Your task to perform on an android device: Search for "panasonic triple a" on amazon, select the first entry, and add it to the cart. Image 0: 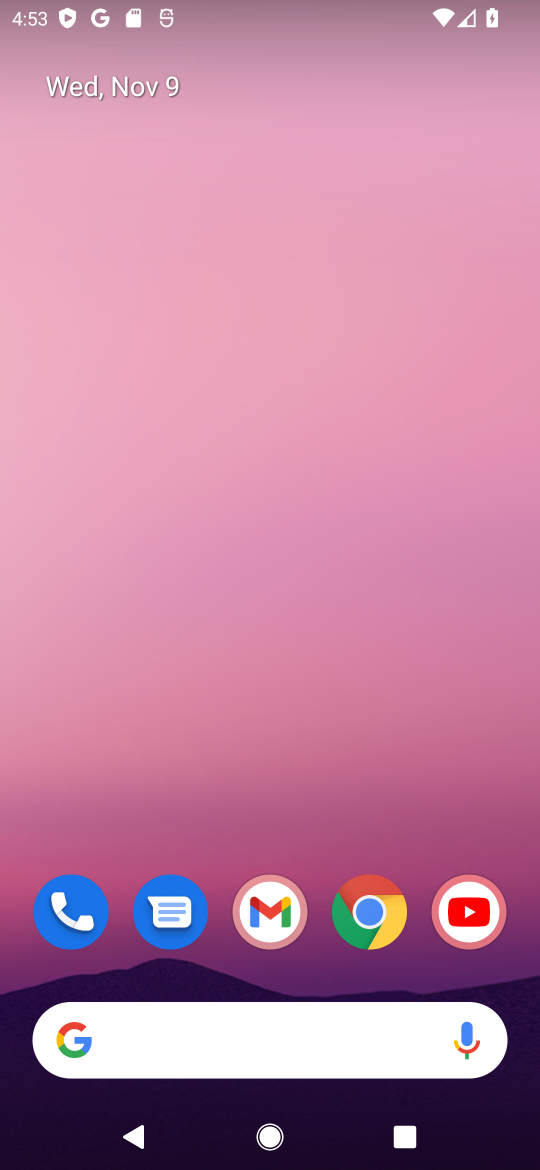
Step 0: click (371, 912)
Your task to perform on an android device: Search for "panasonic triple a" on amazon, select the first entry, and add it to the cart. Image 1: 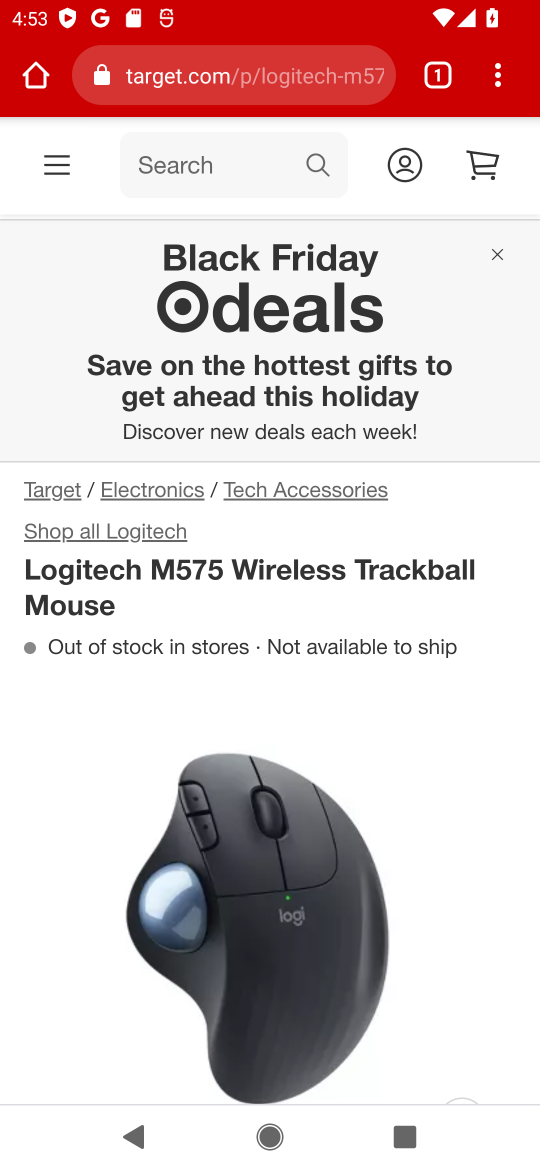
Step 1: click (187, 73)
Your task to perform on an android device: Search for "panasonic triple a" on amazon, select the first entry, and add it to the cart. Image 2: 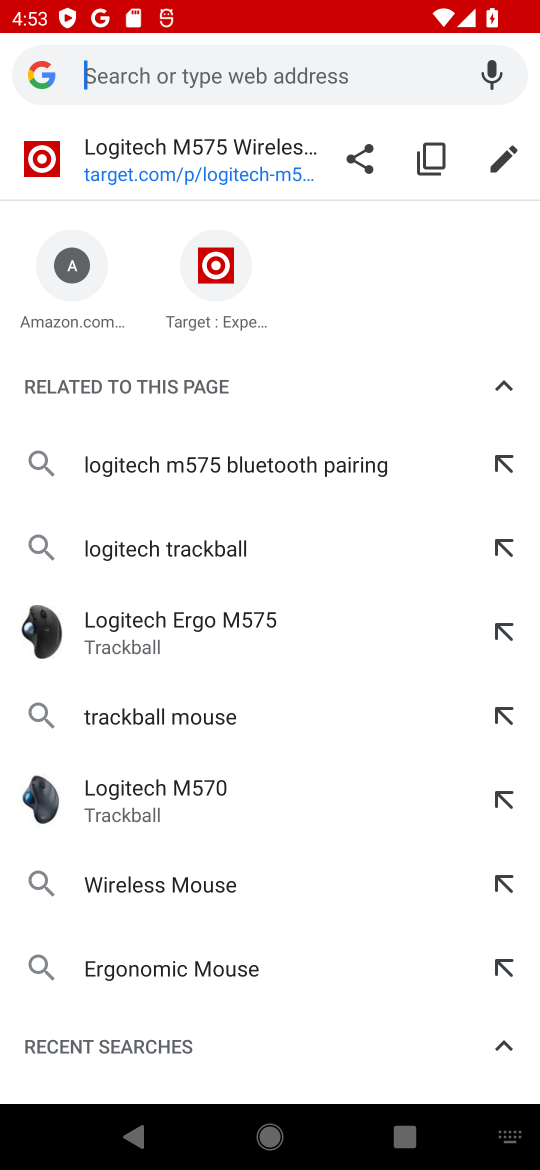
Step 2: type "amazon"
Your task to perform on an android device: Search for "panasonic triple a" on amazon, select the first entry, and add it to the cart. Image 3: 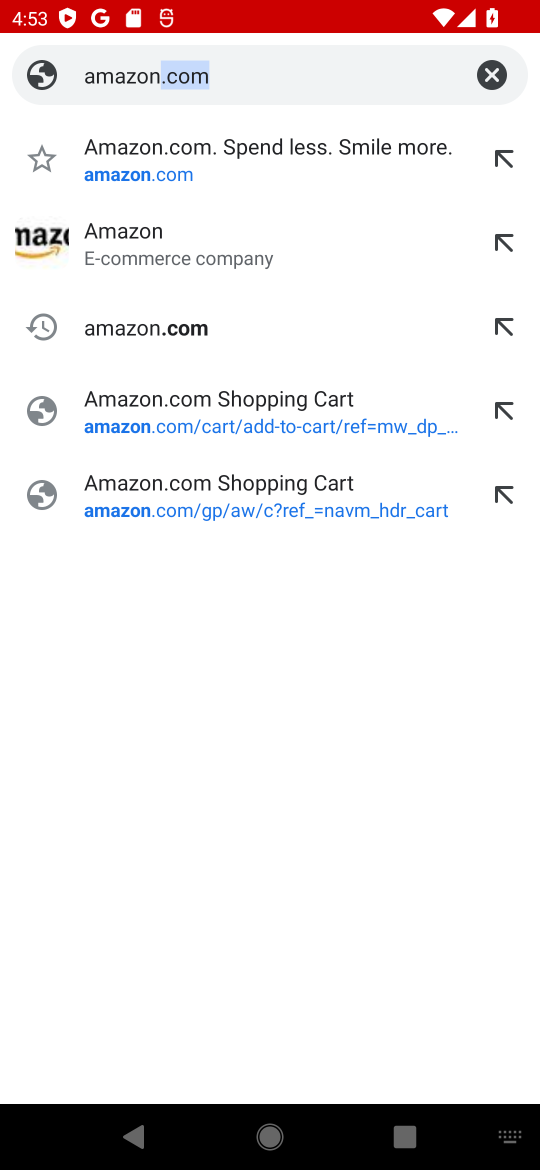
Step 3: click (160, 257)
Your task to perform on an android device: Search for "panasonic triple a" on amazon, select the first entry, and add it to the cart. Image 4: 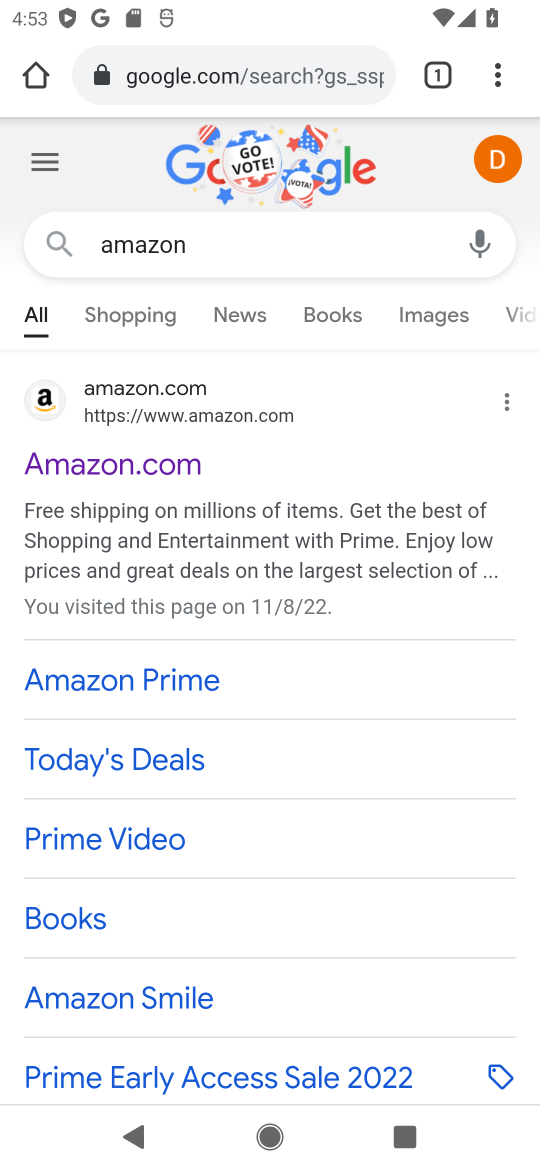
Step 4: click (133, 459)
Your task to perform on an android device: Search for "panasonic triple a" on amazon, select the first entry, and add it to the cart. Image 5: 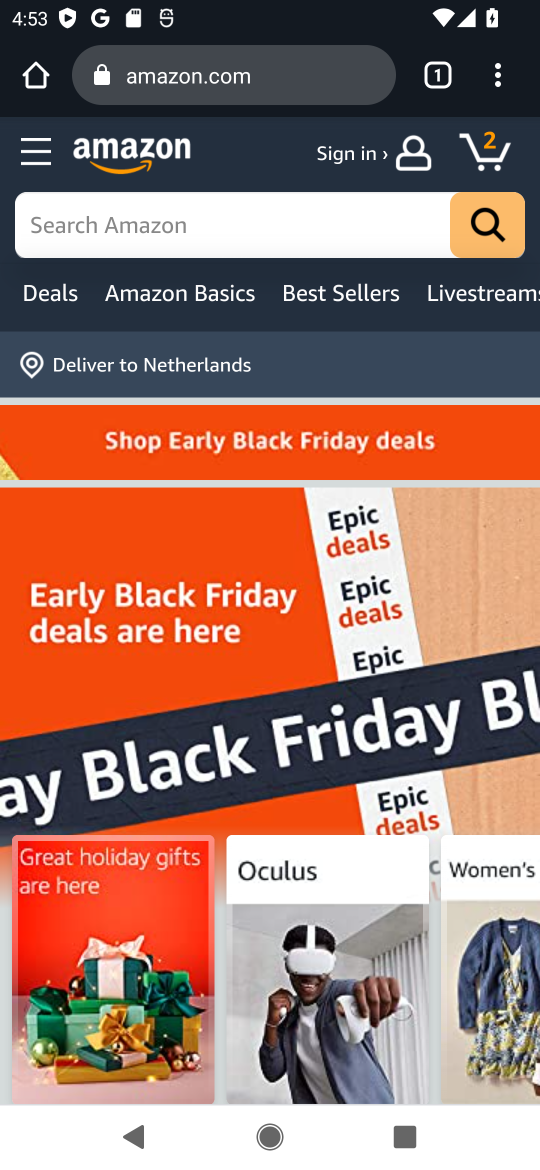
Step 5: click (171, 225)
Your task to perform on an android device: Search for "panasonic triple a" on amazon, select the first entry, and add it to the cart. Image 6: 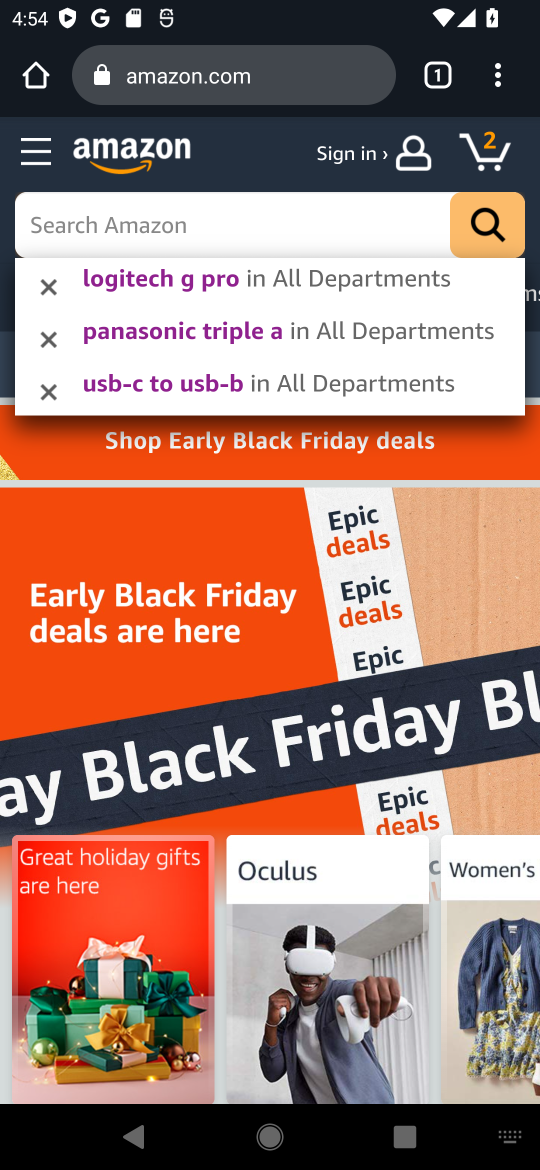
Step 6: type "panasonic triple a"
Your task to perform on an android device: Search for "panasonic triple a" on amazon, select the first entry, and add it to the cart. Image 7: 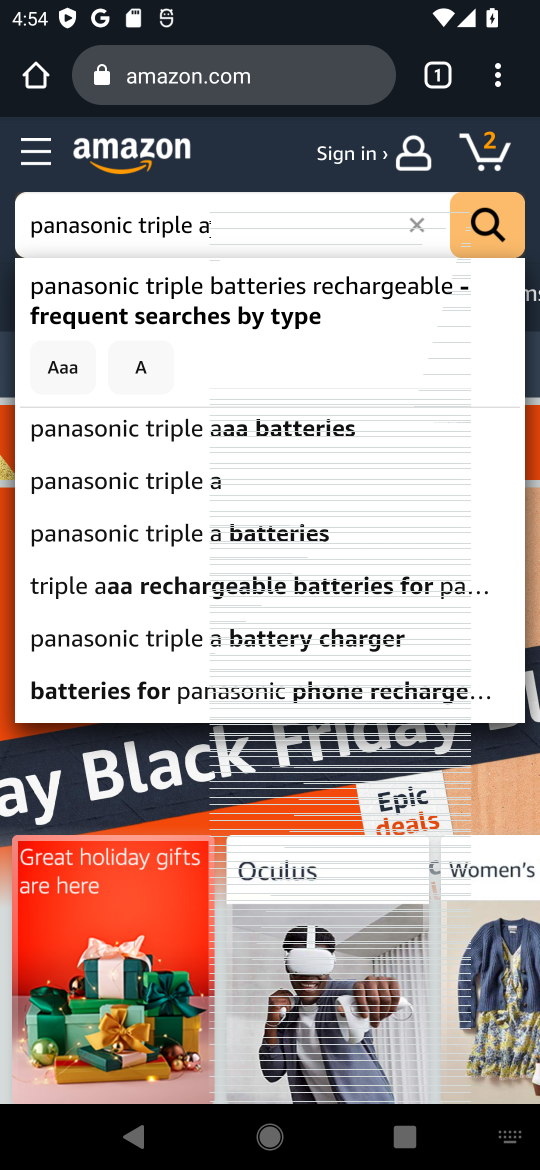
Step 7: click (136, 419)
Your task to perform on an android device: Search for "panasonic triple a" on amazon, select the first entry, and add it to the cart. Image 8: 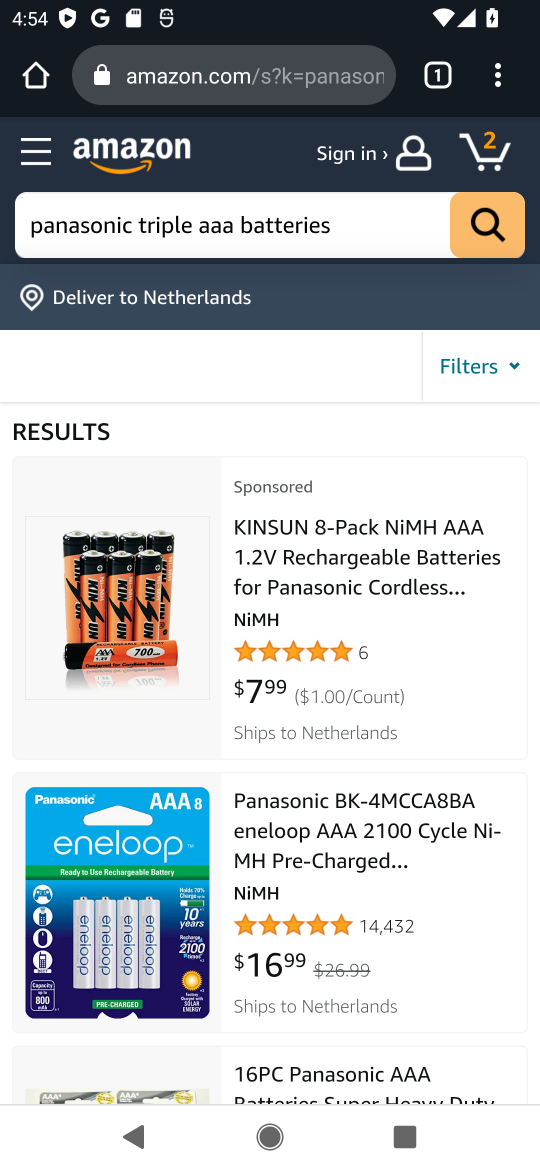
Step 8: drag from (398, 994) to (402, 580)
Your task to perform on an android device: Search for "panasonic triple a" on amazon, select the first entry, and add it to the cart. Image 9: 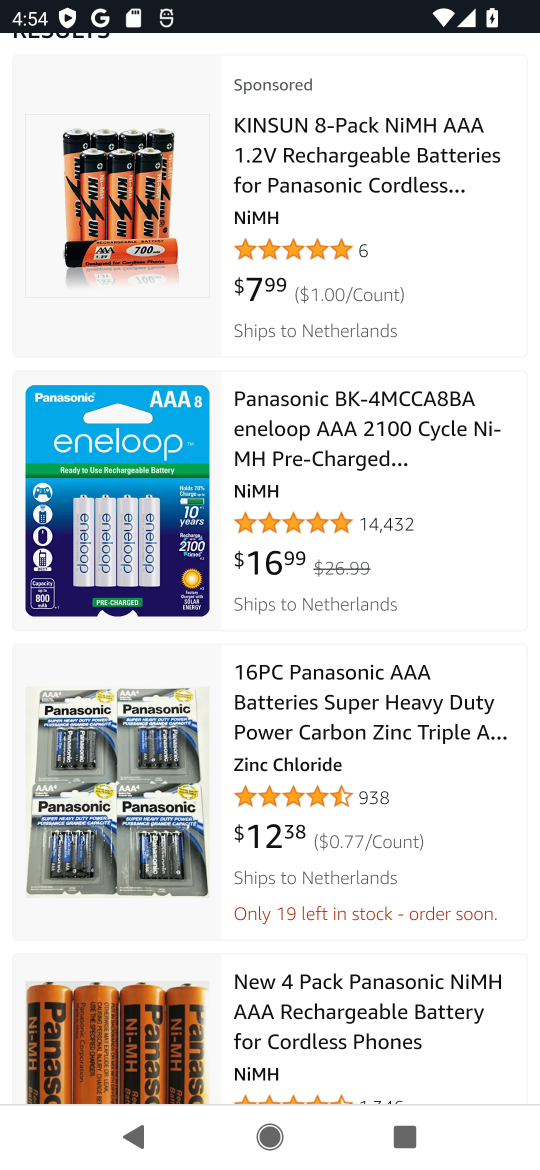
Step 9: click (377, 732)
Your task to perform on an android device: Search for "panasonic triple a" on amazon, select the first entry, and add it to the cart. Image 10: 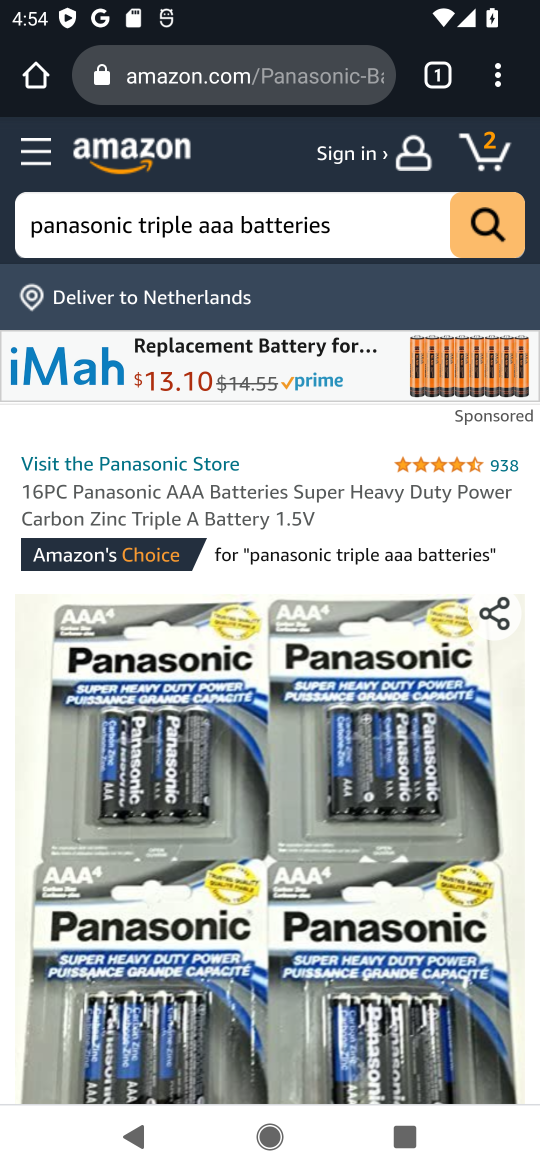
Step 10: drag from (330, 865) to (273, 368)
Your task to perform on an android device: Search for "panasonic triple a" on amazon, select the first entry, and add it to the cart. Image 11: 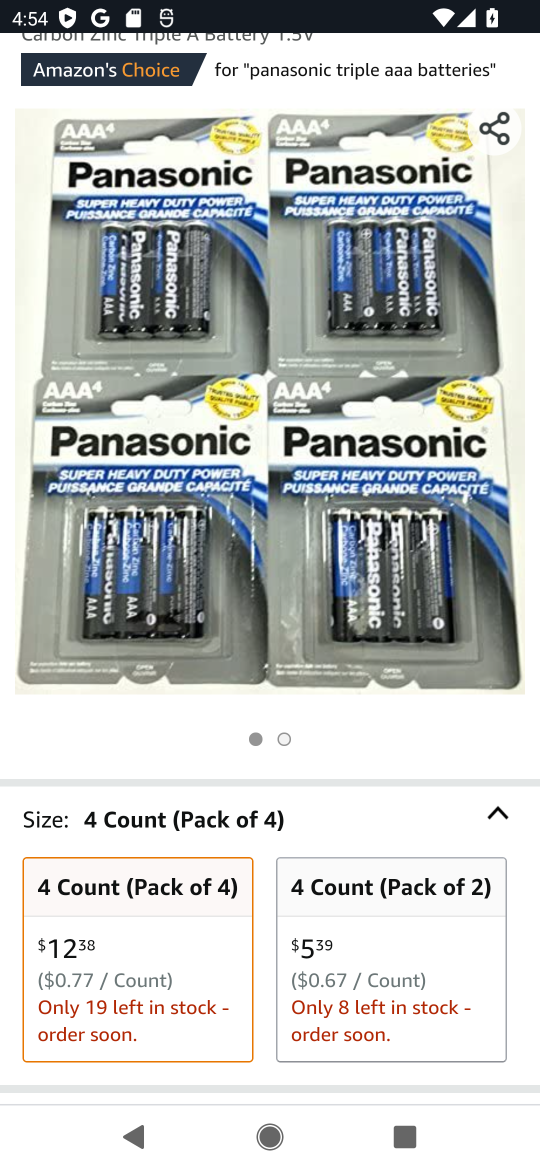
Step 11: drag from (263, 764) to (149, 318)
Your task to perform on an android device: Search for "panasonic triple a" on amazon, select the first entry, and add it to the cart. Image 12: 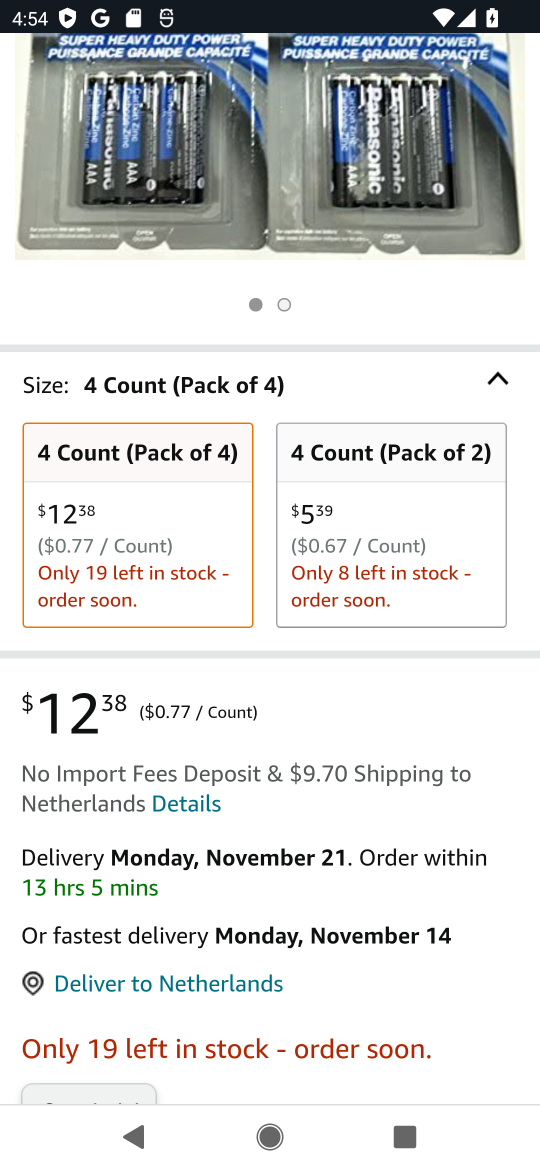
Step 12: drag from (325, 880) to (320, 375)
Your task to perform on an android device: Search for "panasonic triple a" on amazon, select the first entry, and add it to the cart. Image 13: 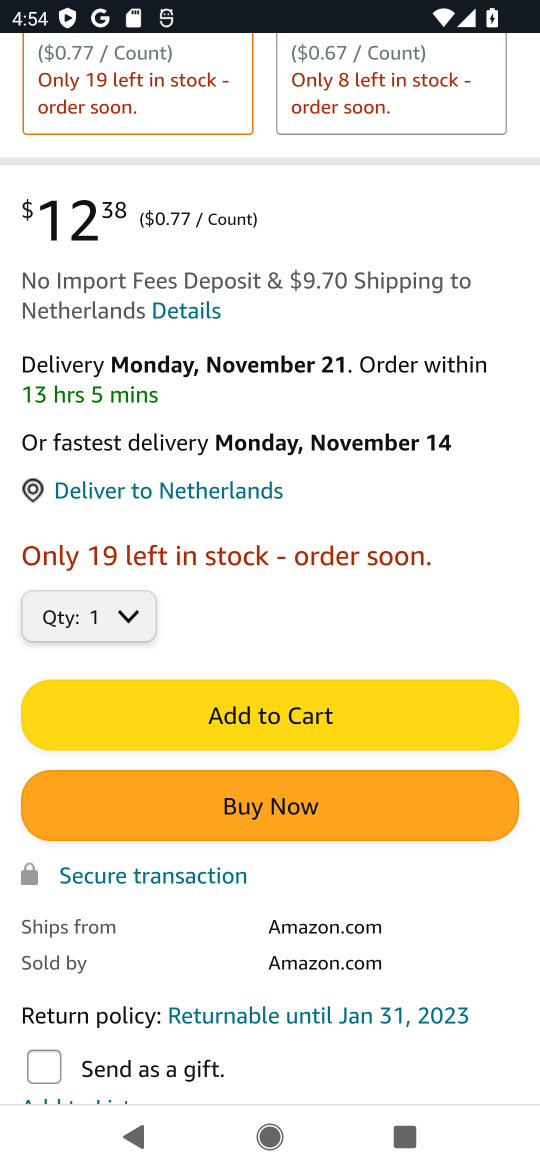
Step 13: click (322, 714)
Your task to perform on an android device: Search for "panasonic triple a" on amazon, select the first entry, and add it to the cart. Image 14: 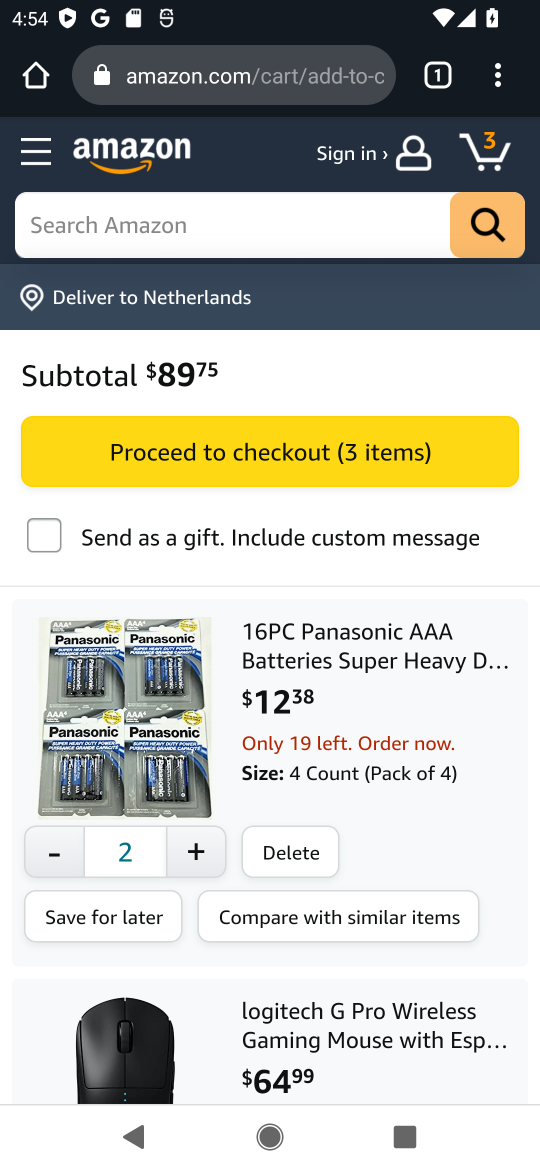
Step 14: click (355, 439)
Your task to perform on an android device: Search for "panasonic triple a" on amazon, select the first entry, and add it to the cart. Image 15: 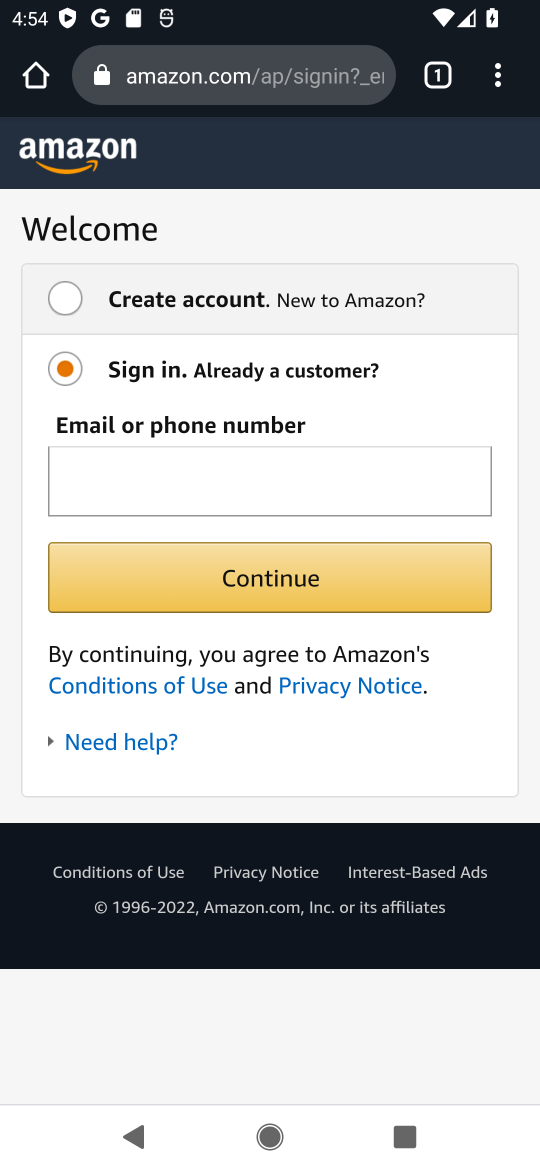
Step 15: task complete